Your task to perform on an android device: change the clock display to digital Image 0: 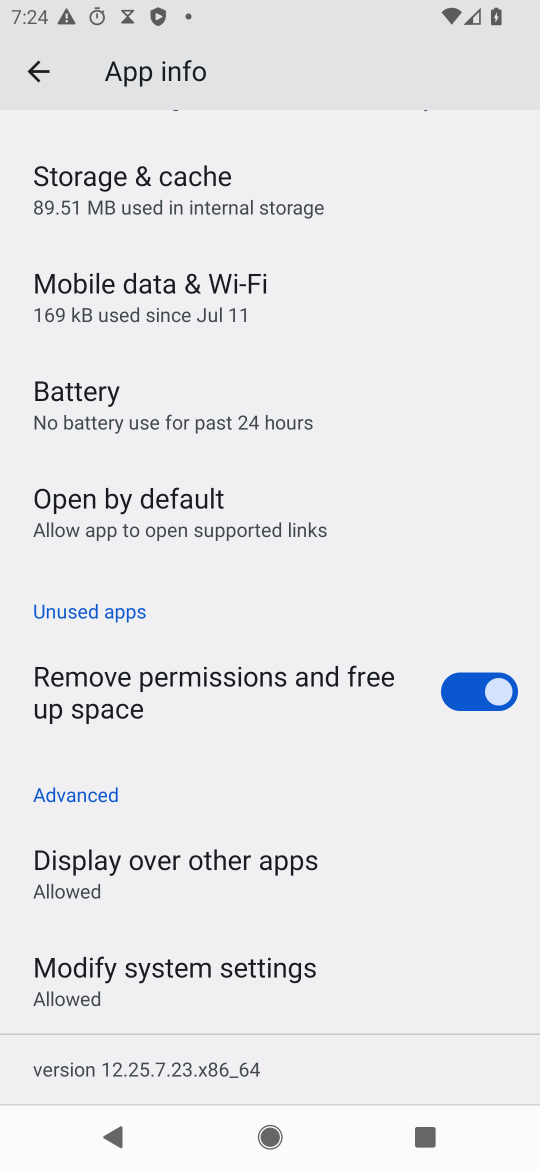
Step 0: press home button
Your task to perform on an android device: change the clock display to digital Image 1: 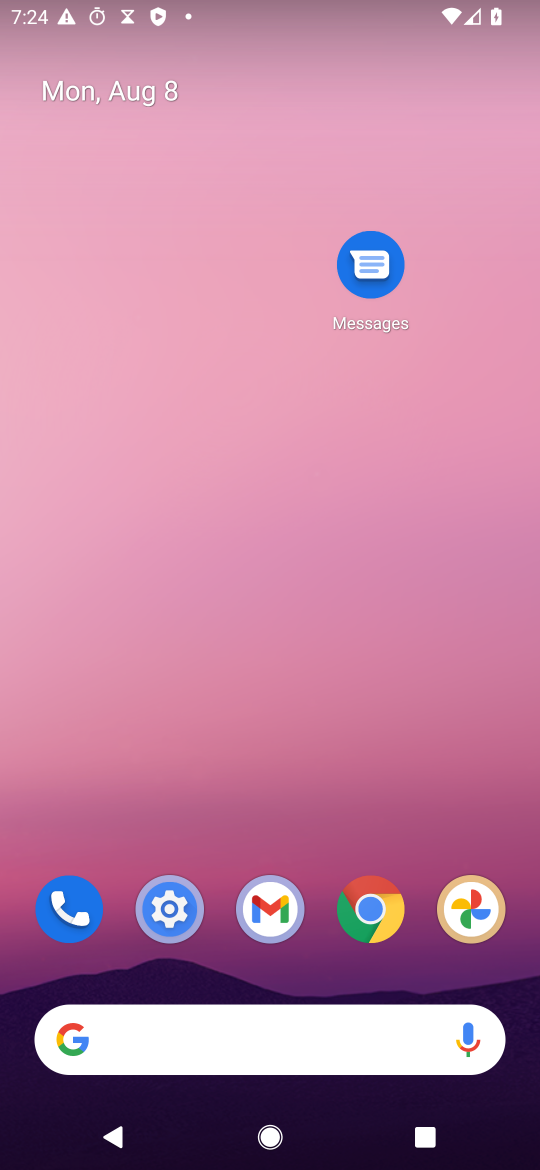
Step 1: drag from (251, 1030) to (368, 48)
Your task to perform on an android device: change the clock display to digital Image 2: 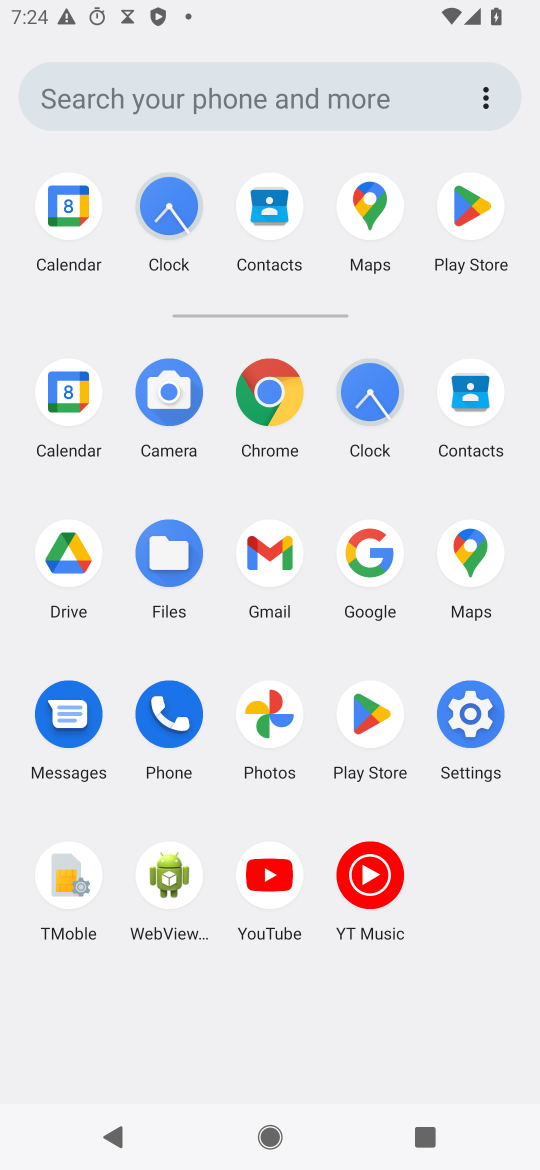
Step 2: click (173, 212)
Your task to perform on an android device: change the clock display to digital Image 3: 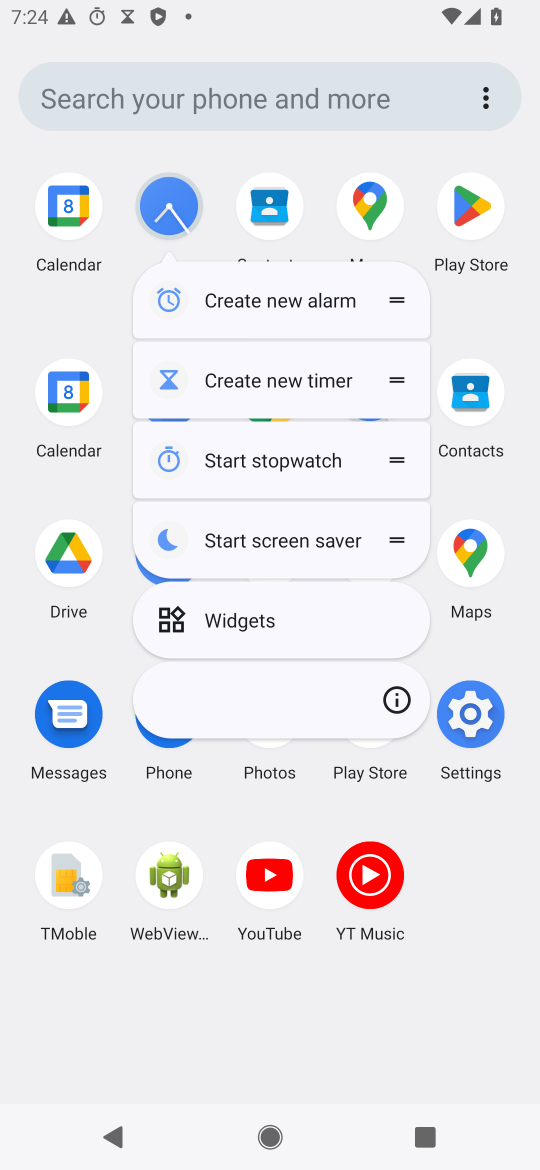
Step 3: click (173, 212)
Your task to perform on an android device: change the clock display to digital Image 4: 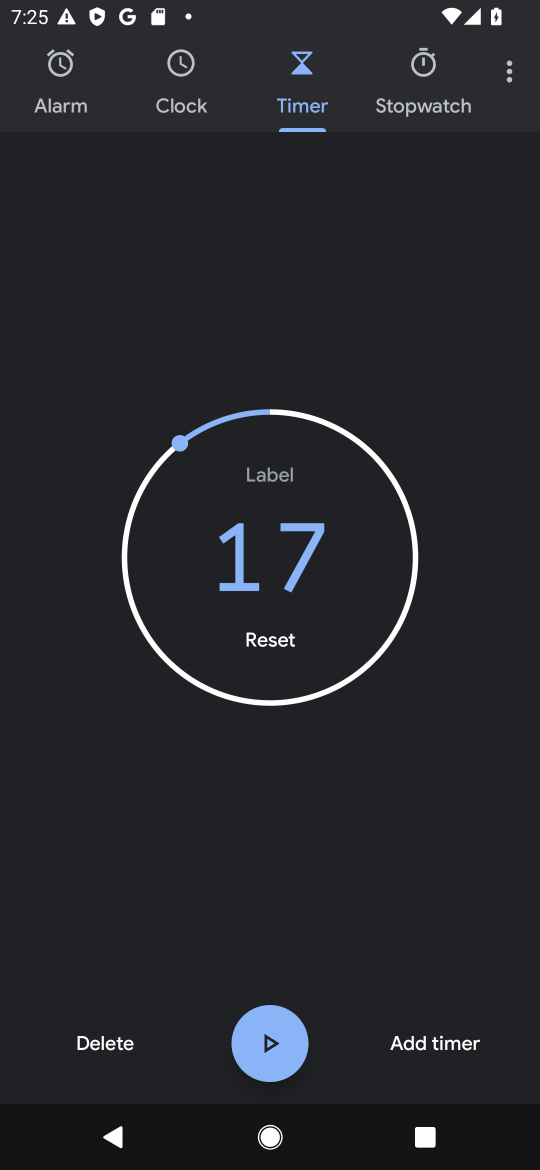
Step 4: click (509, 83)
Your task to perform on an android device: change the clock display to digital Image 5: 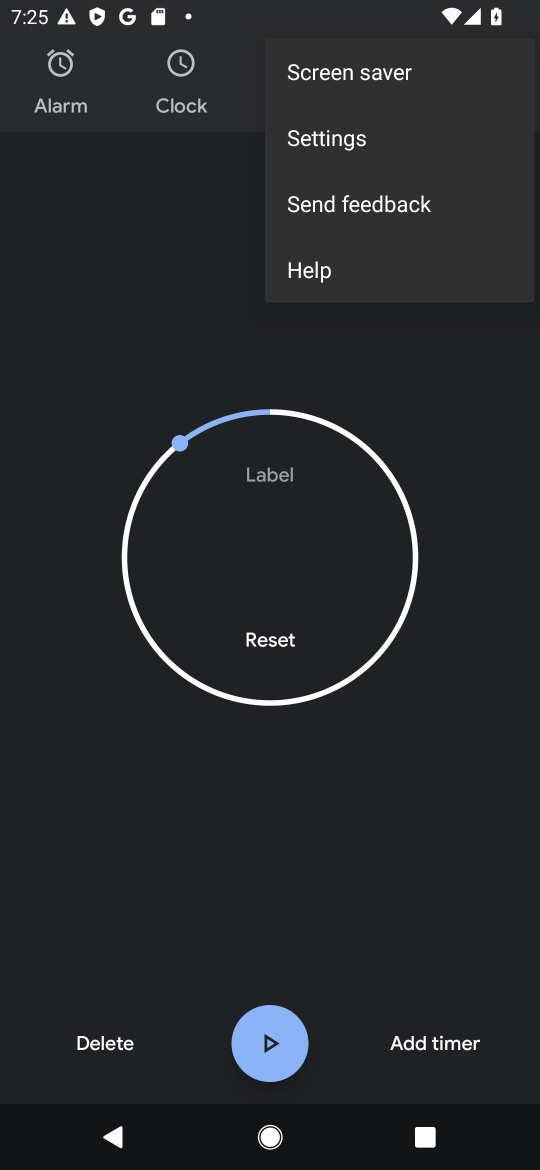
Step 5: click (365, 149)
Your task to perform on an android device: change the clock display to digital Image 6: 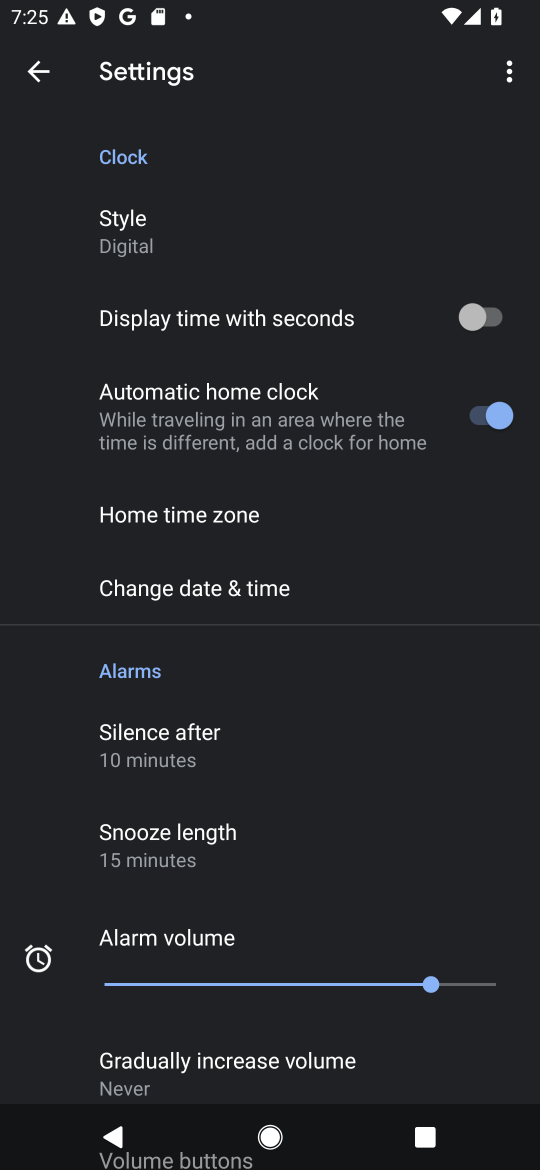
Step 6: task complete